Your task to perform on an android device: Open Google Chrome Image 0: 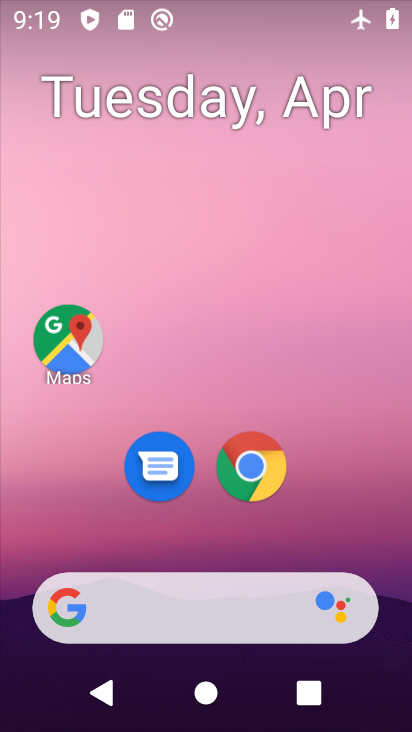
Step 0: click (375, 510)
Your task to perform on an android device: Open Google Chrome Image 1: 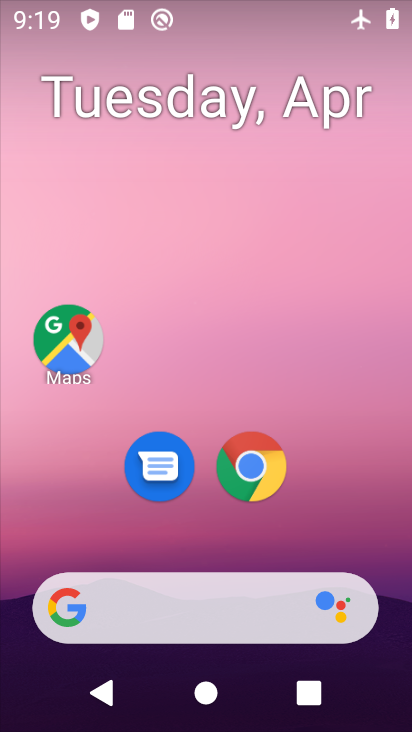
Step 1: click (252, 453)
Your task to perform on an android device: Open Google Chrome Image 2: 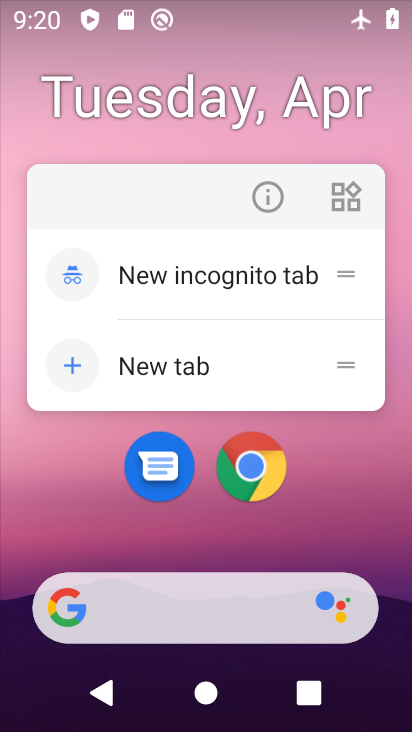
Step 2: click (252, 453)
Your task to perform on an android device: Open Google Chrome Image 3: 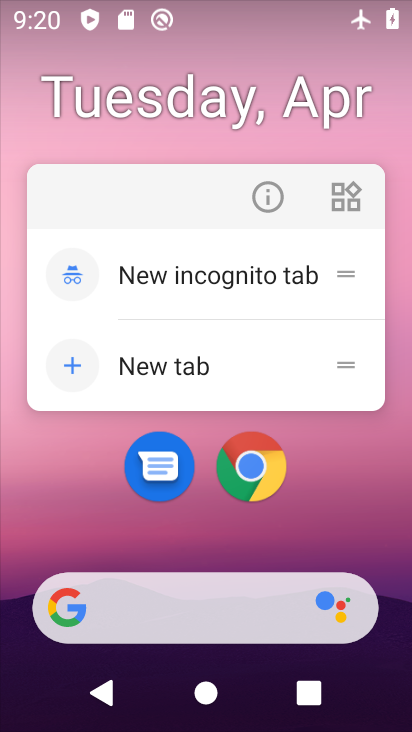
Step 3: click (252, 453)
Your task to perform on an android device: Open Google Chrome Image 4: 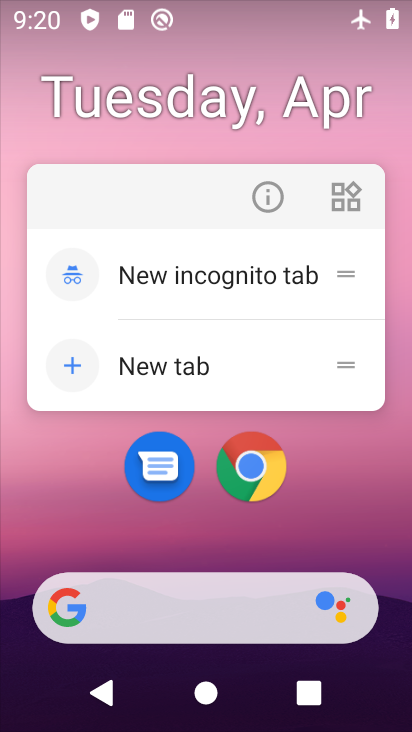
Step 4: click (252, 453)
Your task to perform on an android device: Open Google Chrome Image 5: 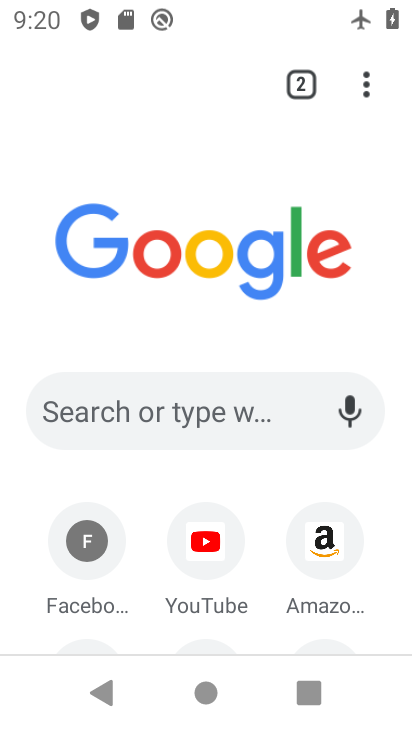
Step 5: click (376, 92)
Your task to perform on an android device: Open Google Chrome Image 6: 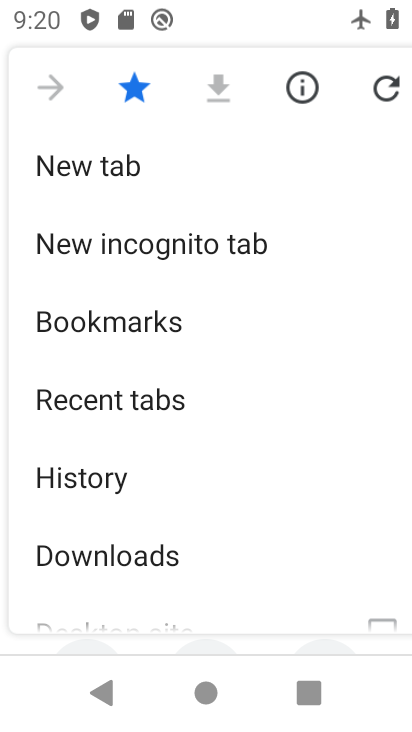
Step 6: task complete